Your task to perform on an android device: Go to wifi settings Image 0: 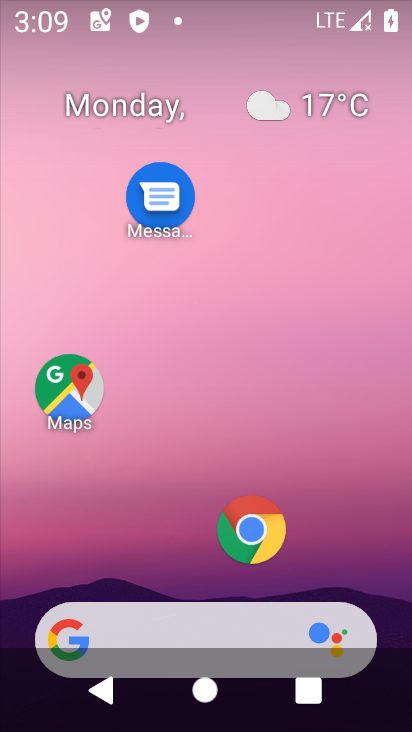
Step 0: press home button
Your task to perform on an android device: Go to wifi settings Image 1: 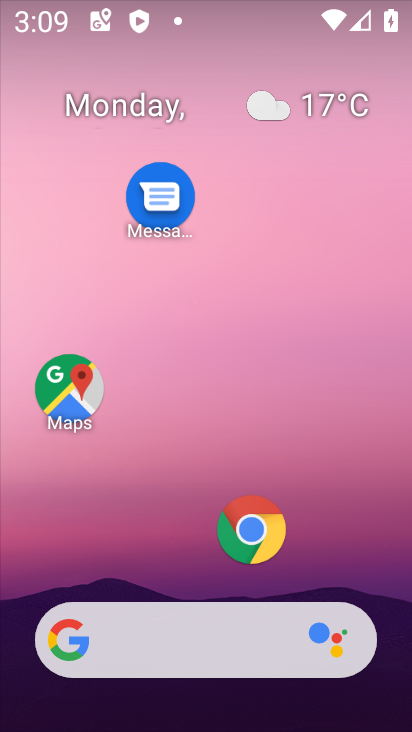
Step 1: drag from (203, 575) to (265, 85)
Your task to perform on an android device: Go to wifi settings Image 2: 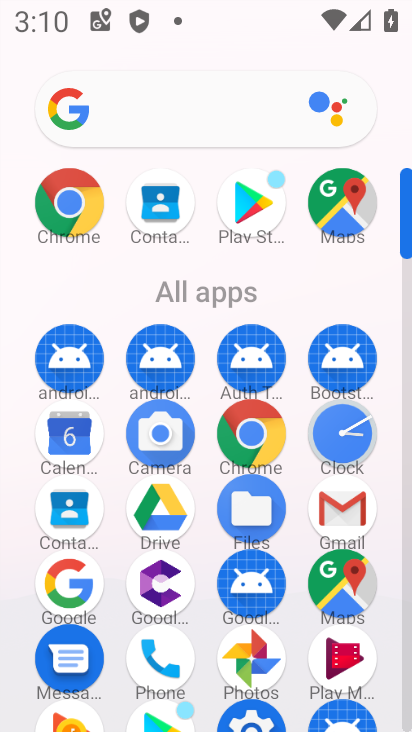
Step 2: click (251, 714)
Your task to perform on an android device: Go to wifi settings Image 3: 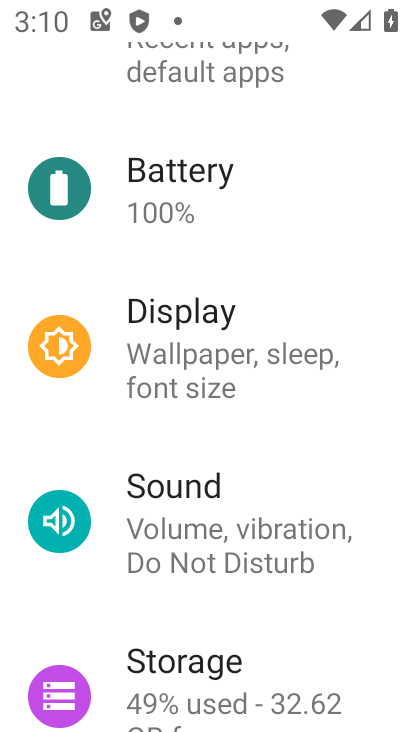
Step 3: drag from (191, 122) to (169, 655)
Your task to perform on an android device: Go to wifi settings Image 4: 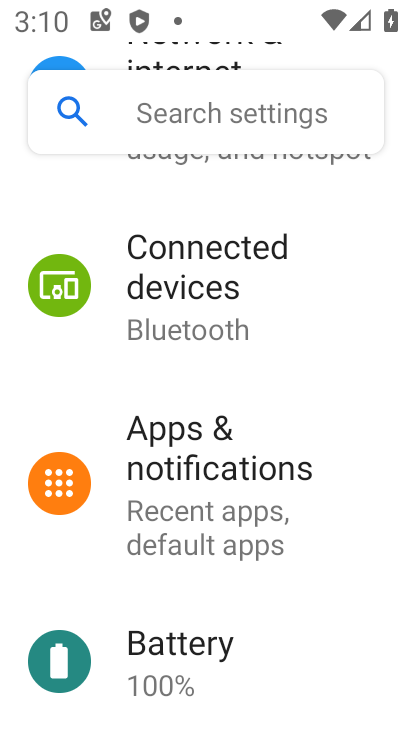
Step 4: drag from (167, 230) to (171, 719)
Your task to perform on an android device: Go to wifi settings Image 5: 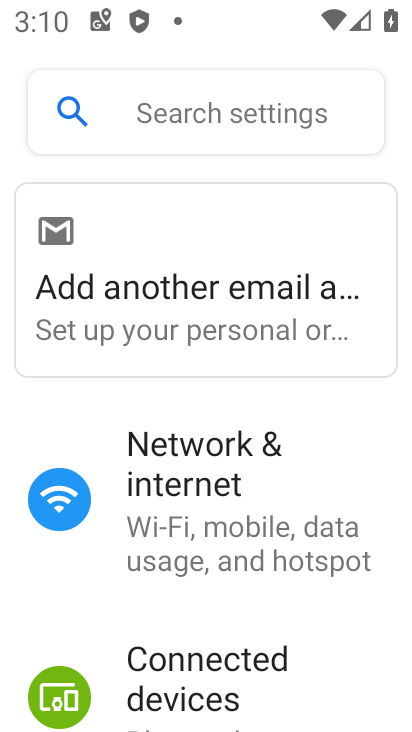
Step 5: click (181, 502)
Your task to perform on an android device: Go to wifi settings Image 6: 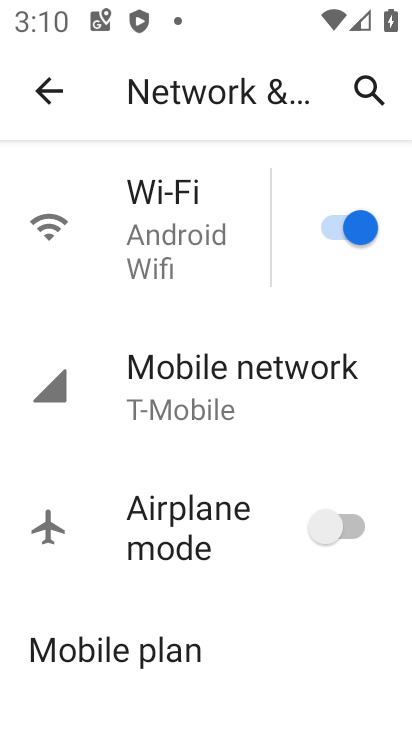
Step 6: click (232, 249)
Your task to perform on an android device: Go to wifi settings Image 7: 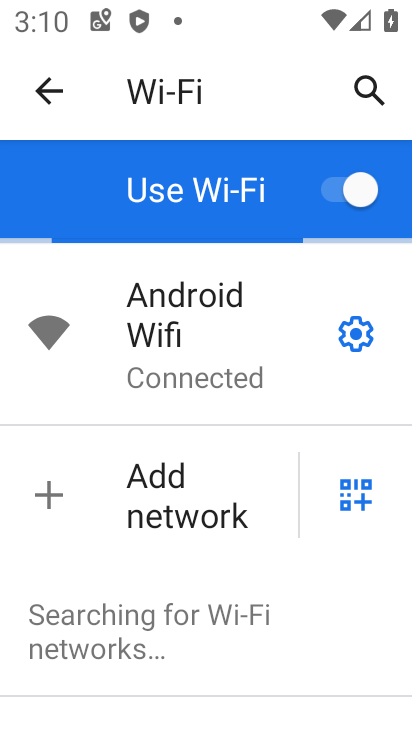
Step 7: task complete